Your task to perform on an android device: change notification settings in the gmail app Image 0: 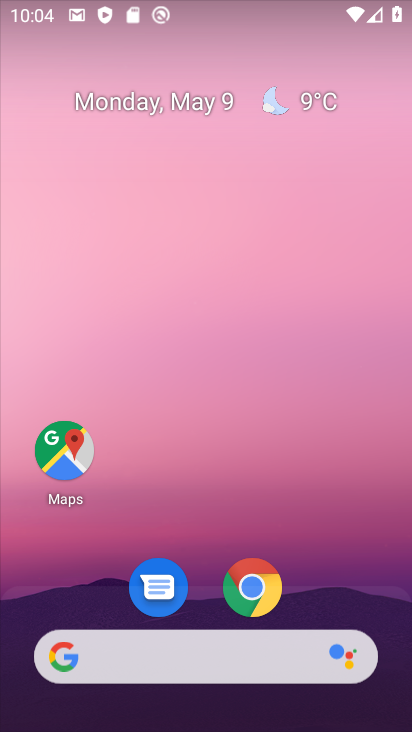
Step 0: drag from (175, 620) to (270, 301)
Your task to perform on an android device: change notification settings in the gmail app Image 1: 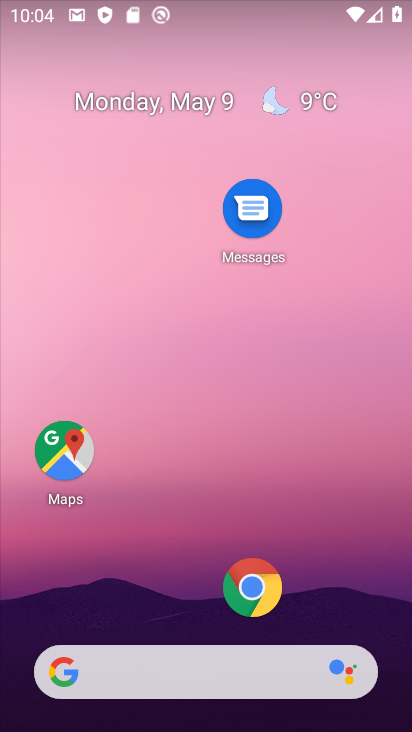
Step 1: drag from (218, 633) to (239, 354)
Your task to perform on an android device: change notification settings in the gmail app Image 2: 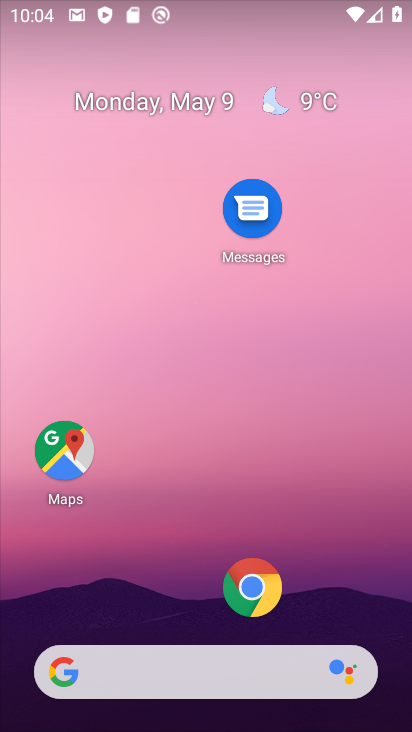
Step 2: drag from (183, 661) to (286, 153)
Your task to perform on an android device: change notification settings in the gmail app Image 3: 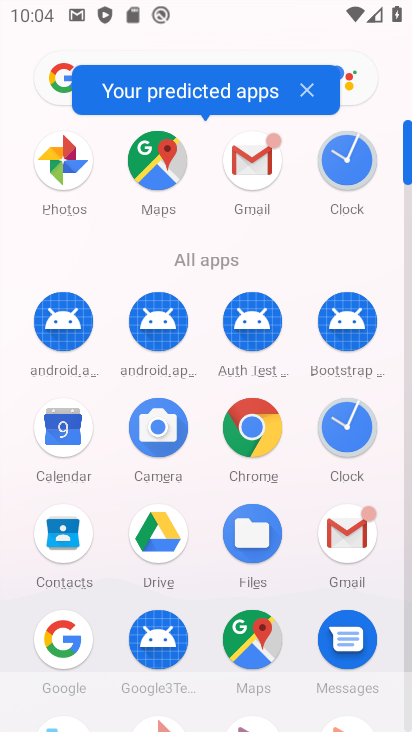
Step 3: click (350, 523)
Your task to perform on an android device: change notification settings in the gmail app Image 4: 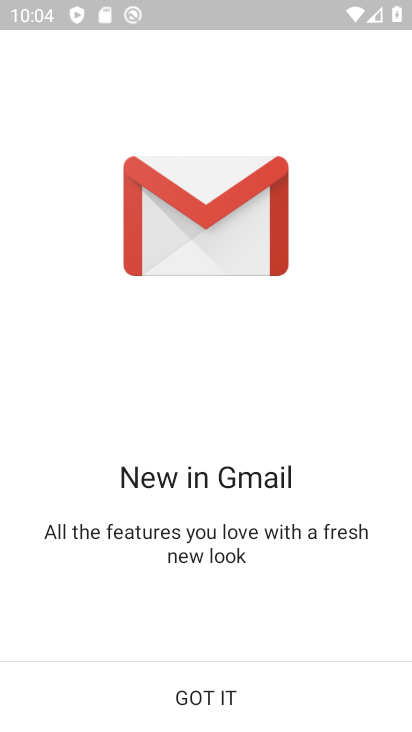
Step 4: click (193, 704)
Your task to perform on an android device: change notification settings in the gmail app Image 5: 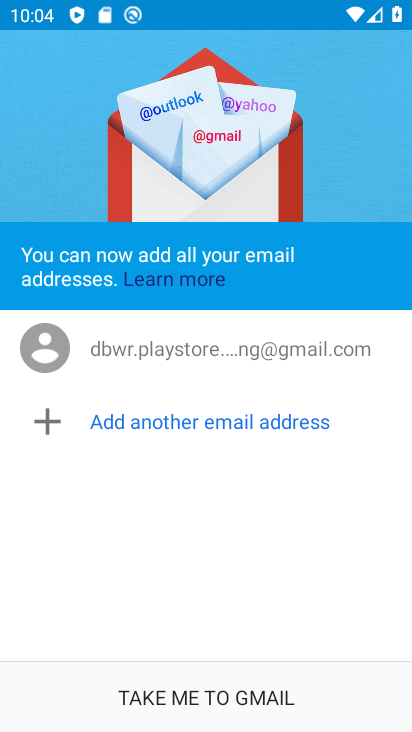
Step 5: click (168, 680)
Your task to perform on an android device: change notification settings in the gmail app Image 6: 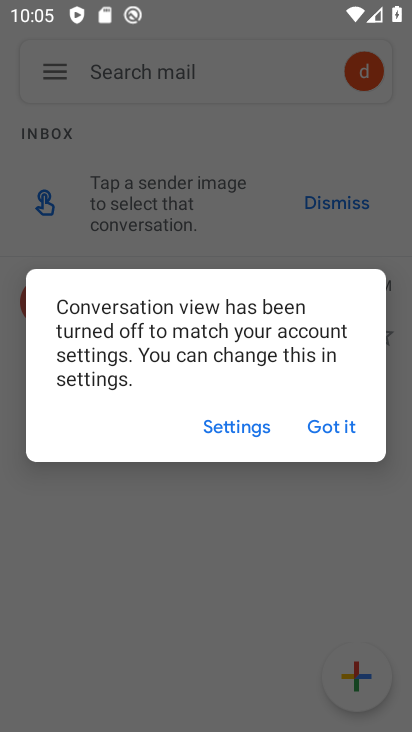
Step 6: click (342, 432)
Your task to perform on an android device: change notification settings in the gmail app Image 7: 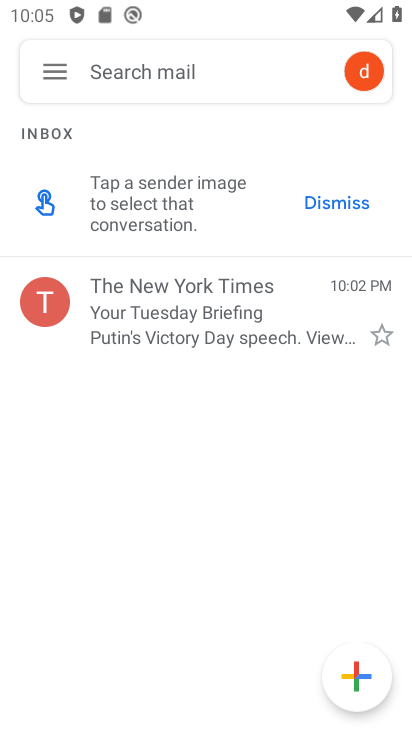
Step 7: click (47, 73)
Your task to perform on an android device: change notification settings in the gmail app Image 8: 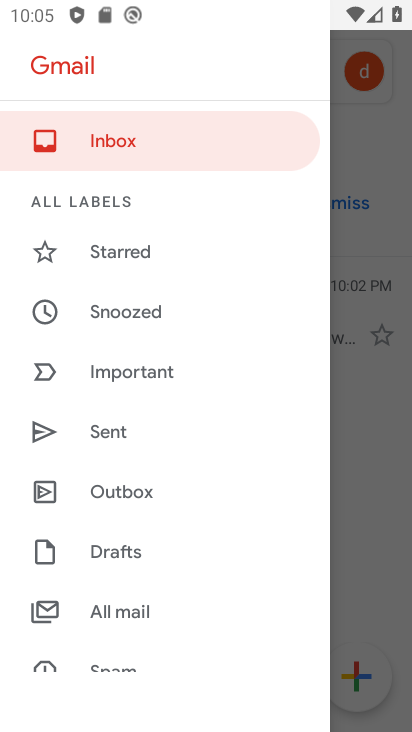
Step 8: drag from (128, 396) to (133, 311)
Your task to perform on an android device: change notification settings in the gmail app Image 9: 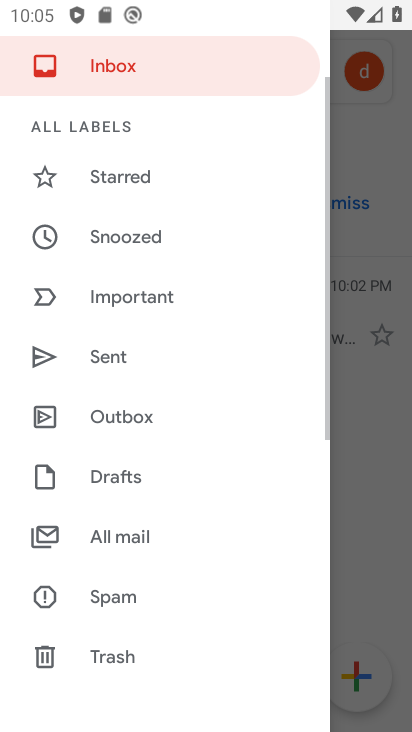
Step 9: drag from (168, 611) to (214, 259)
Your task to perform on an android device: change notification settings in the gmail app Image 10: 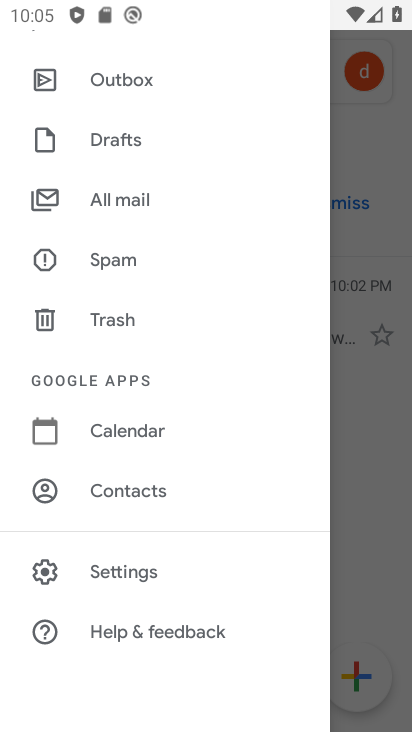
Step 10: drag from (181, 649) to (199, 304)
Your task to perform on an android device: change notification settings in the gmail app Image 11: 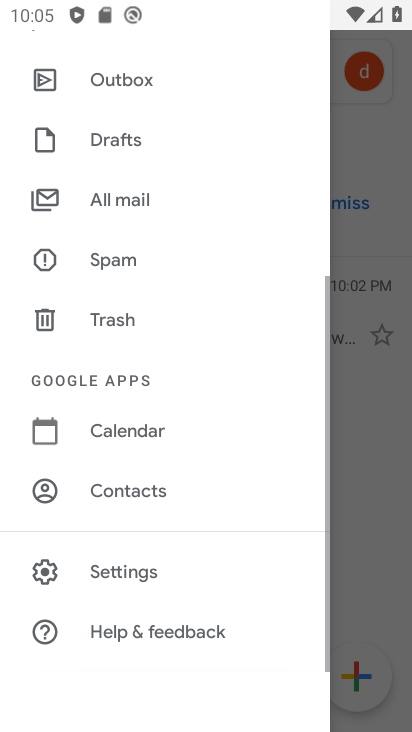
Step 11: click (158, 574)
Your task to perform on an android device: change notification settings in the gmail app Image 12: 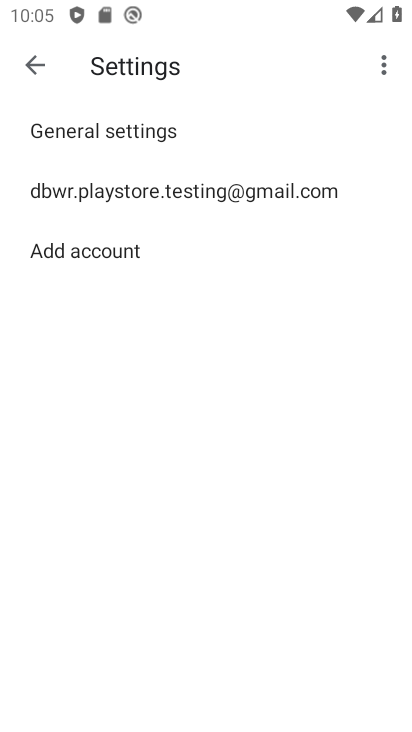
Step 12: click (223, 184)
Your task to perform on an android device: change notification settings in the gmail app Image 13: 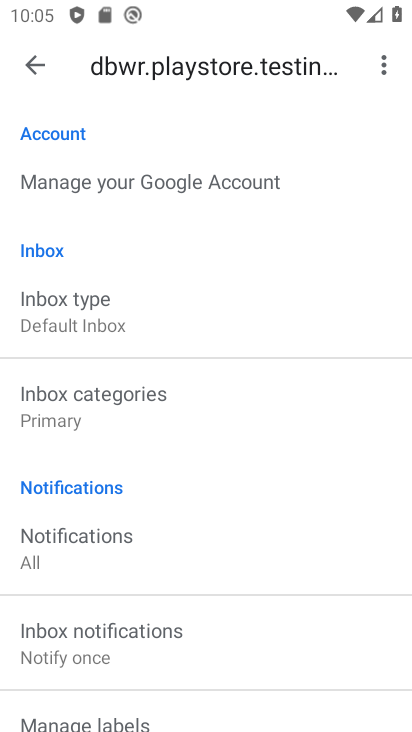
Step 13: drag from (184, 408) to (184, 282)
Your task to perform on an android device: change notification settings in the gmail app Image 14: 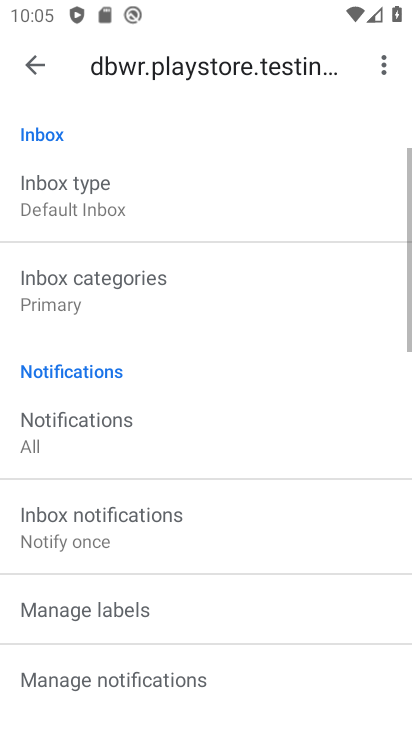
Step 14: drag from (149, 638) to (237, 315)
Your task to perform on an android device: change notification settings in the gmail app Image 15: 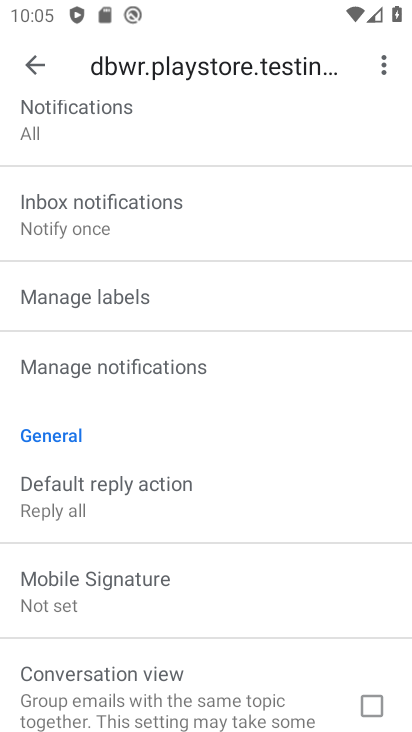
Step 15: click (200, 360)
Your task to perform on an android device: change notification settings in the gmail app Image 16: 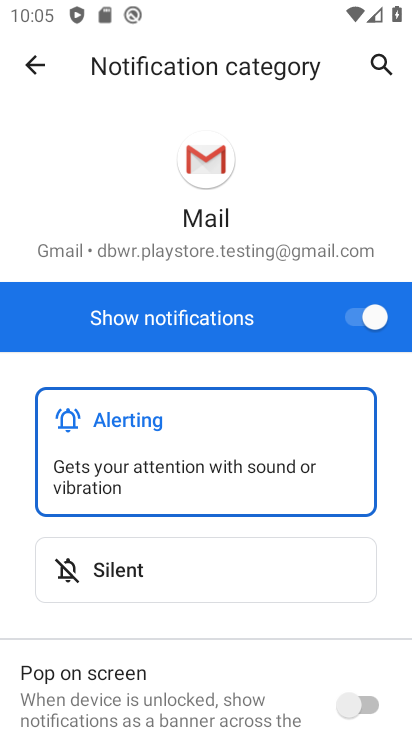
Step 16: drag from (195, 677) to (232, 292)
Your task to perform on an android device: change notification settings in the gmail app Image 17: 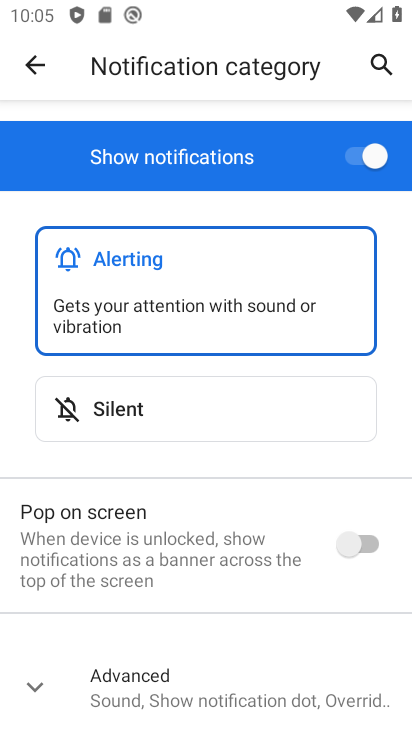
Step 17: drag from (136, 193) to (242, 639)
Your task to perform on an android device: change notification settings in the gmail app Image 18: 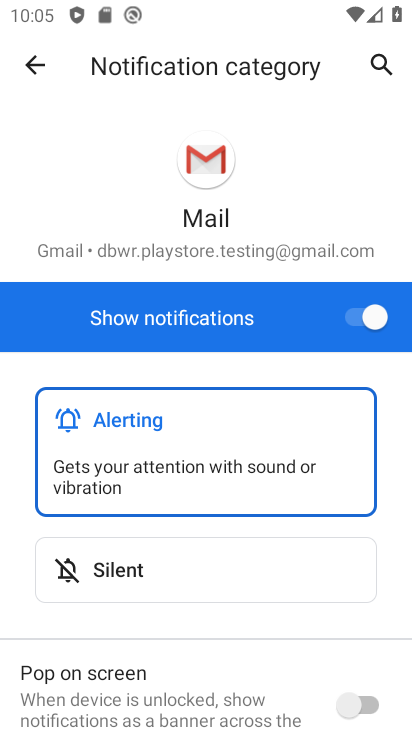
Step 18: drag from (199, 643) to (254, 186)
Your task to perform on an android device: change notification settings in the gmail app Image 19: 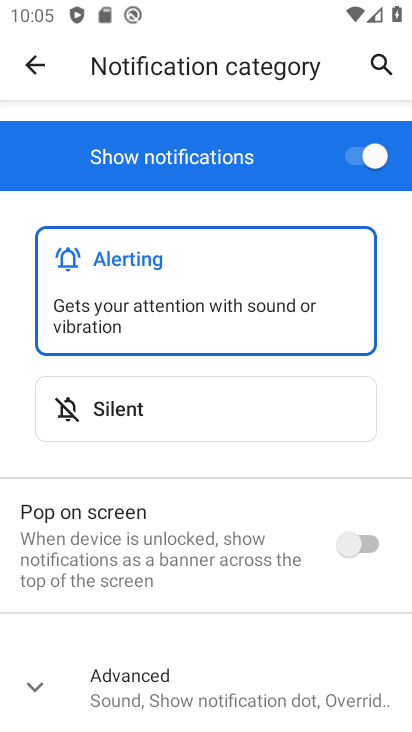
Step 19: click (161, 681)
Your task to perform on an android device: change notification settings in the gmail app Image 20: 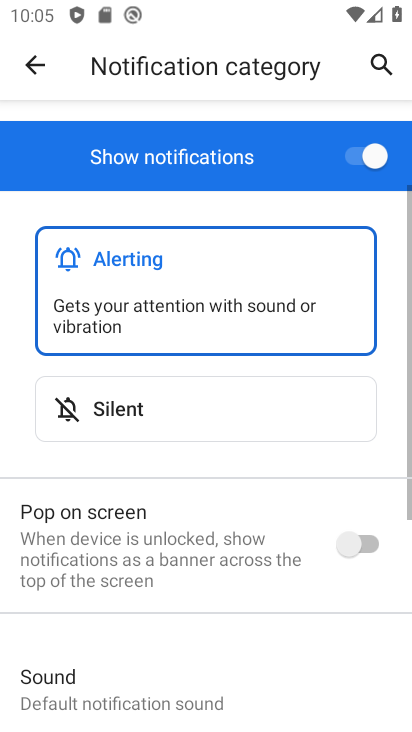
Step 20: drag from (161, 681) to (272, 287)
Your task to perform on an android device: change notification settings in the gmail app Image 21: 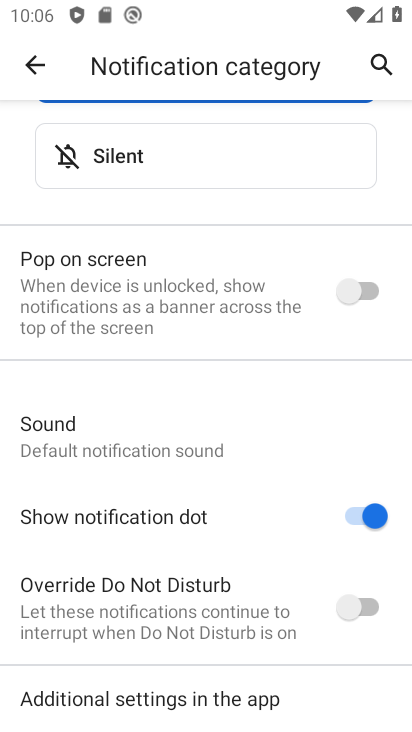
Step 21: drag from (252, 163) to (250, 583)
Your task to perform on an android device: change notification settings in the gmail app Image 22: 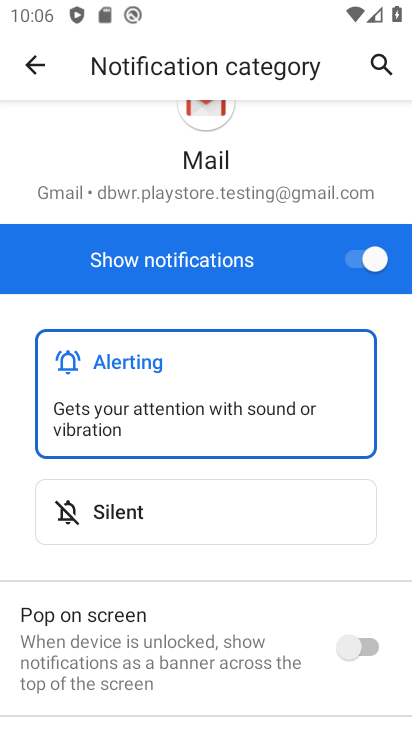
Step 22: click (356, 261)
Your task to perform on an android device: change notification settings in the gmail app Image 23: 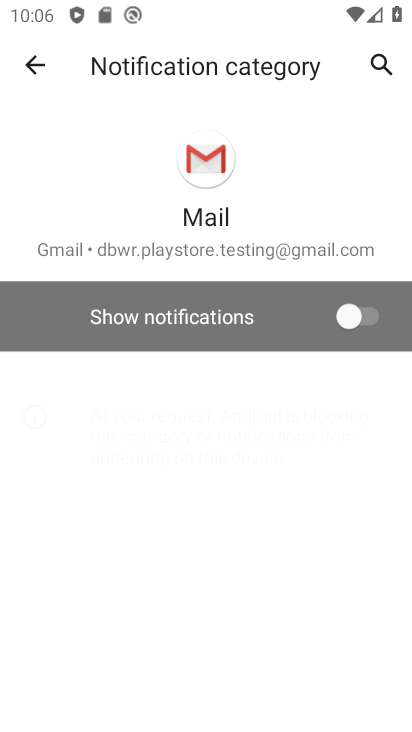
Step 23: task complete